Your task to perform on an android device: Toggle the flashlight Image 0: 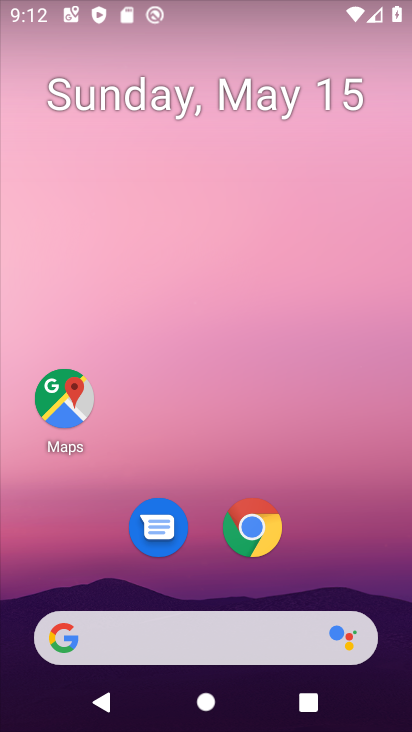
Step 0: drag from (318, 12) to (235, 543)
Your task to perform on an android device: Toggle the flashlight Image 1: 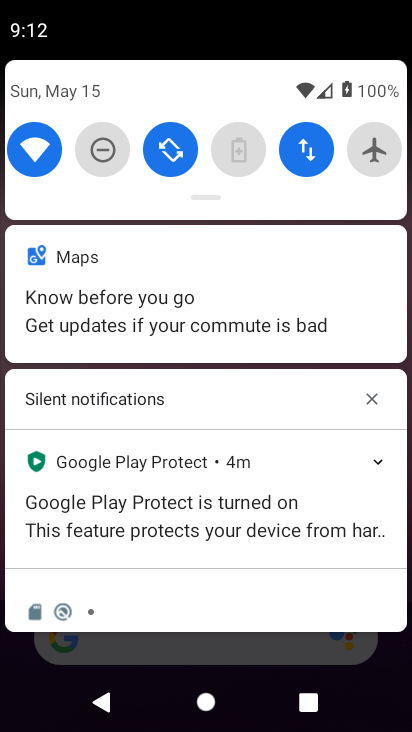
Step 1: drag from (211, 190) to (167, 552)
Your task to perform on an android device: Toggle the flashlight Image 2: 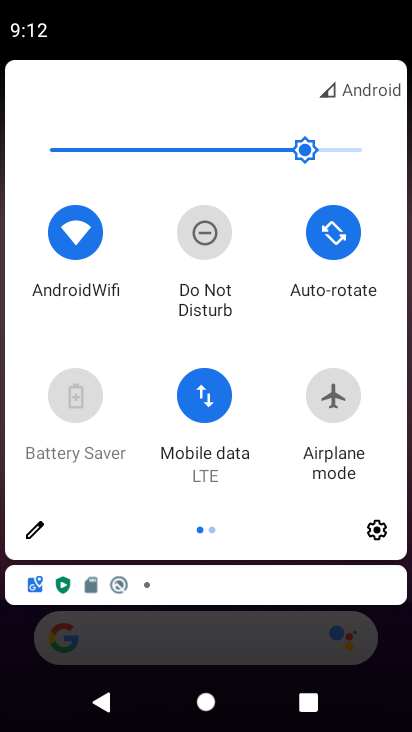
Step 2: drag from (349, 360) to (86, 297)
Your task to perform on an android device: Toggle the flashlight Image 3: 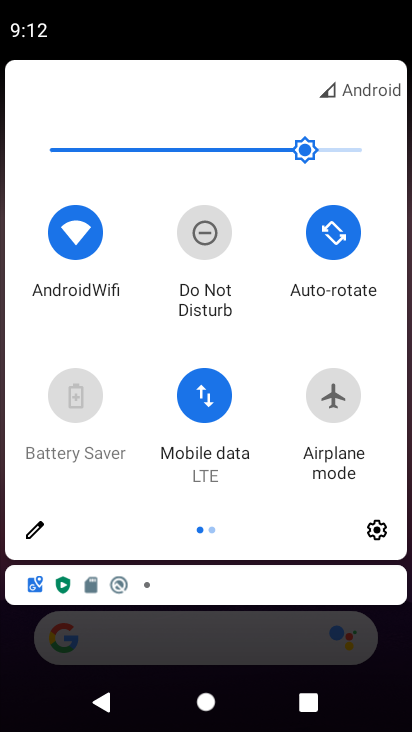
Step 3: drag from (355, 328) to (110, 219)
Your task to perform on an android device: Toggle the flashlight Image 4: 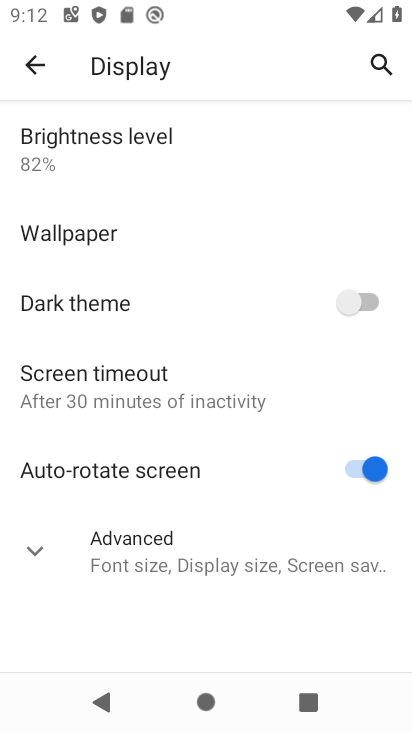
Step 4: drag from (289, 11) to (254, 456)
Your task to perform on an android device: Toggle the flashlight Image 5: 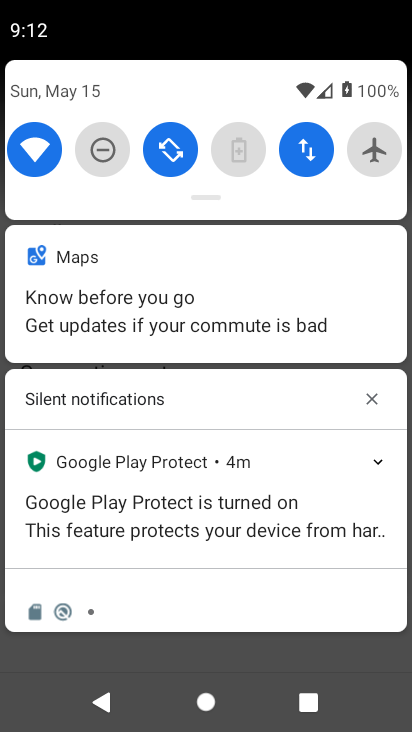
Step 5: drag from (211, 187) to (230, 442)
Your task to perform on an android device: Toggle the flashlight Image 6: 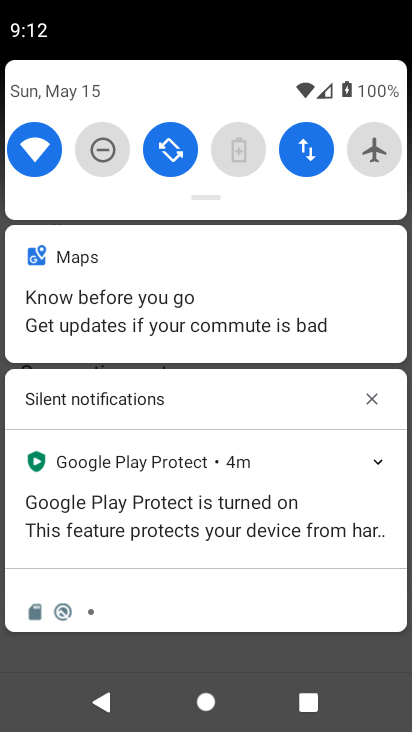
Step 6: drag from (201, 167) to (181, 673)
Your task to perform on an android device: Toggle the flashlight Image 7: 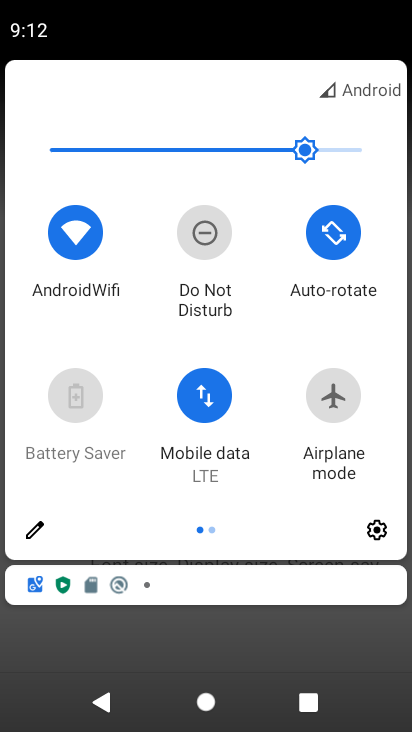
Step 7: drag from (340, 324) to (131, 313)
Your task to perform on an android device: Toggle the flashlight Image 8: 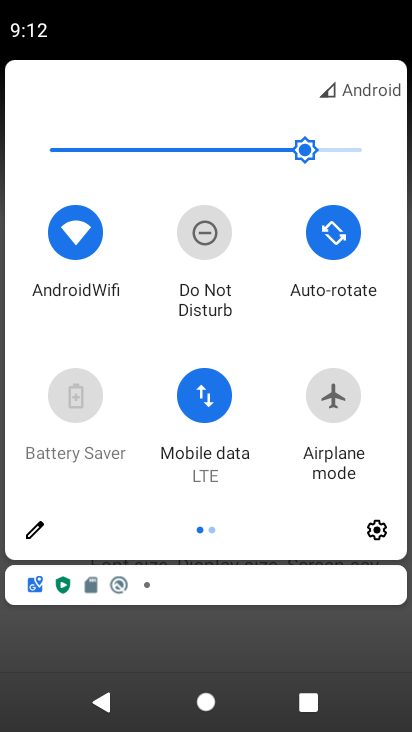
Step 8: click (131, 313)
Your task to perform on an android device: Toggle the flashlight Image 9: 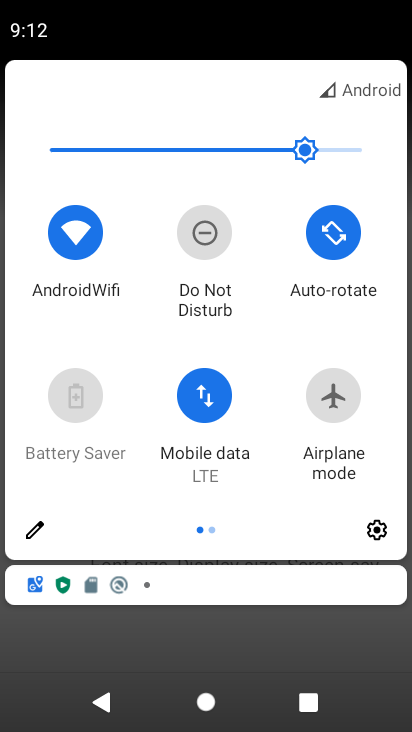
Step 9: drag from (377, 326) to (8, 271)
Your task to perform on an android device: Toggle the flashlight Image 10: 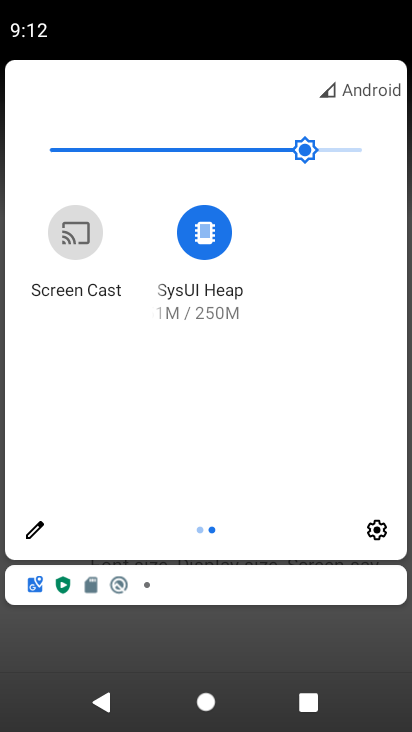
Step 10: click (36, 522)
Your task to perform on an android device: Toggle the flashlight Image 11: 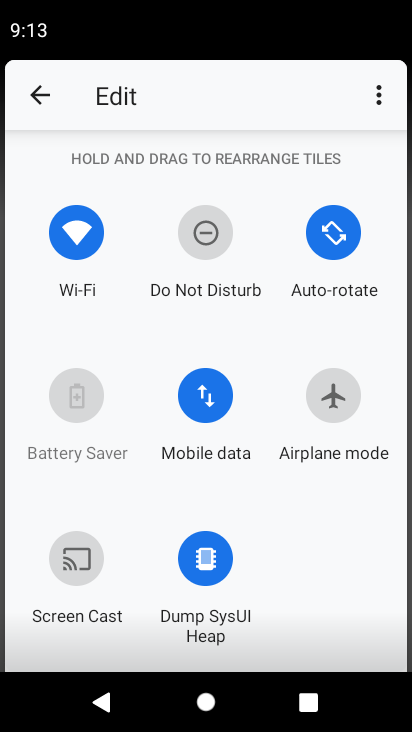
Step 11: task complete